Your task to perform on an android device: Search for "usb-c to usb-a" on target.com, select the first entry, and add it to the cart. Image 0: 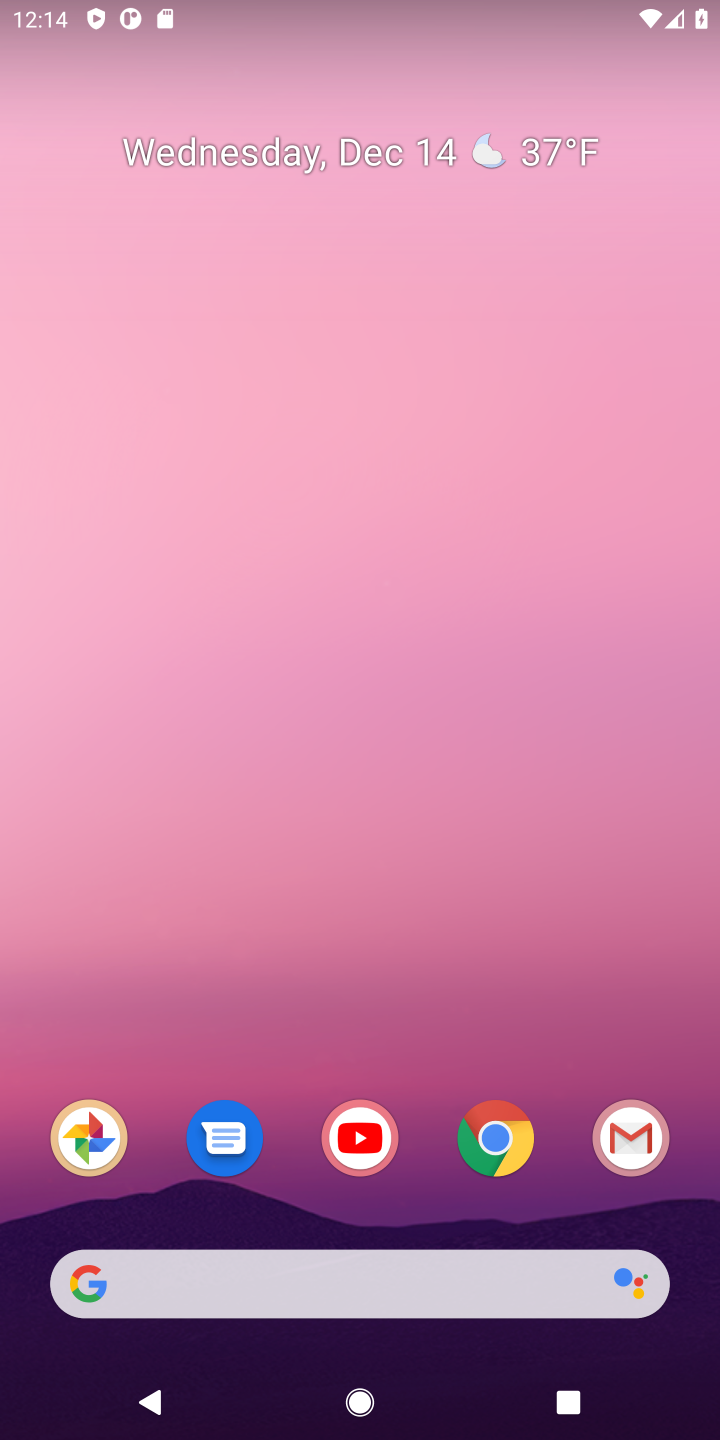
Step 0: click (500, 1148)
Your task to perform on an android device: Search for "usb-c to usb-a" on target.com, select the first entry, and add it to the cart. Image 1: 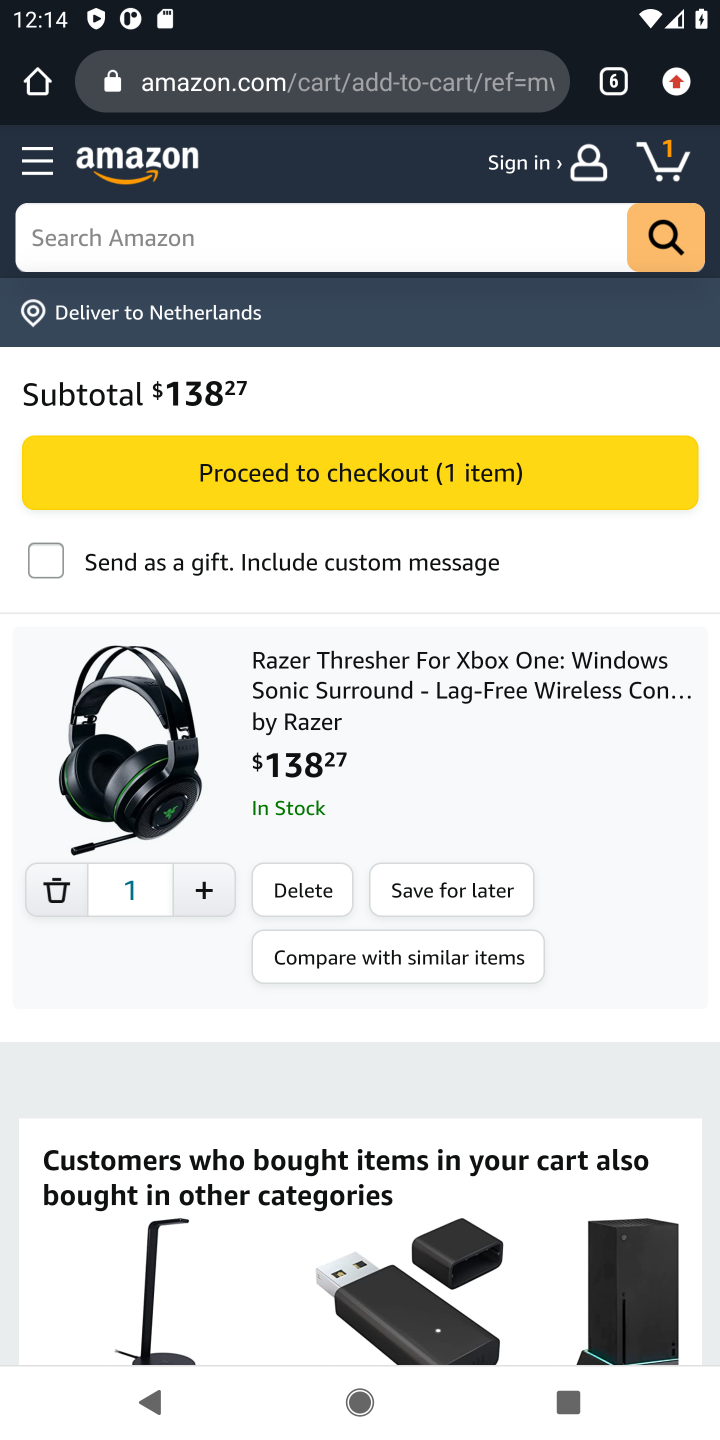
Step 1: click (607, 86)
Your task to perform on an android device: Search for "usb-c to usb-a" on target.com, select the first entry, and add it to the cart. Image 2: 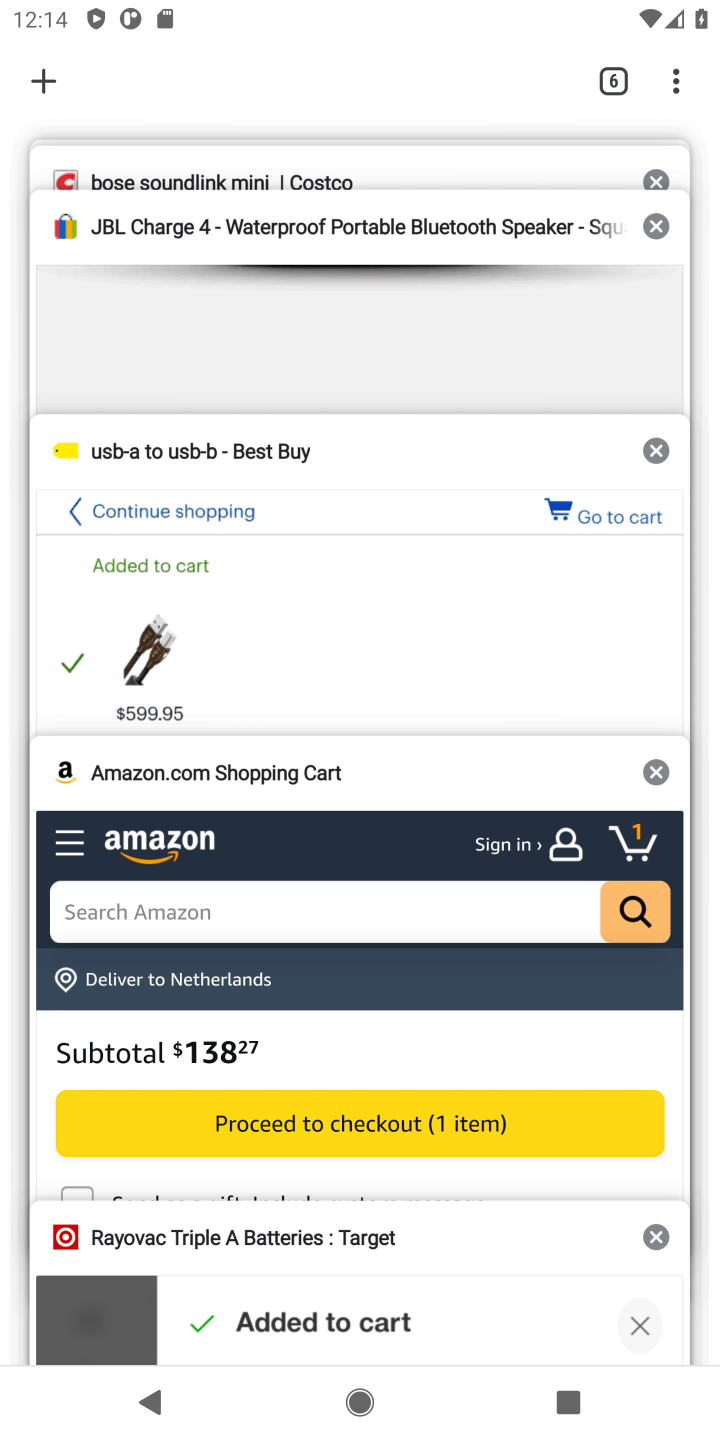
Step 2: drag from (261, 102) to (139, 796)
Your task to perform on an android device: Search for "usb-c to usb-a" on target.com, select the first entry, and add it to the cart. Image 3: 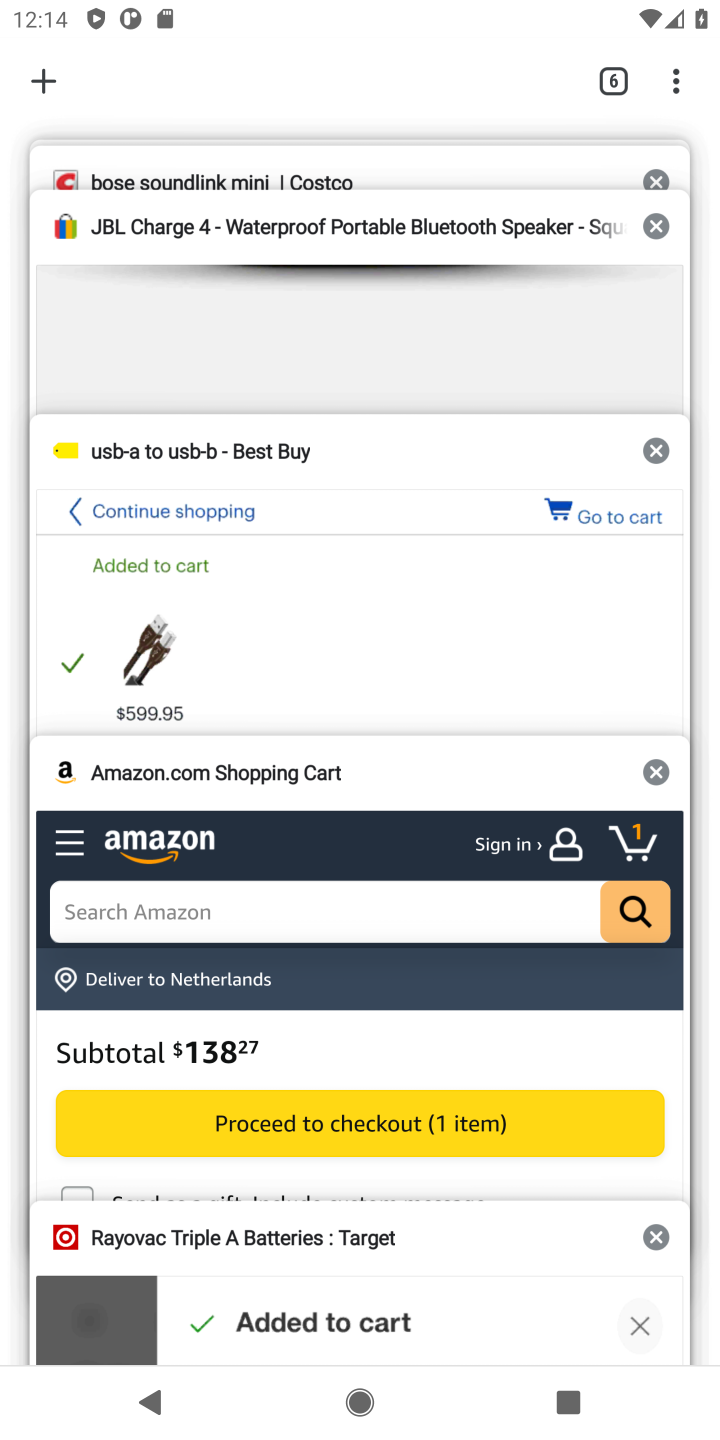
Step 3: drag from (268, 173) to (274, 614)
Your task to perform on an android device: Search for "usb-c to usb-a" on target.com, select the first entry, and add it to the cart. Image 4: 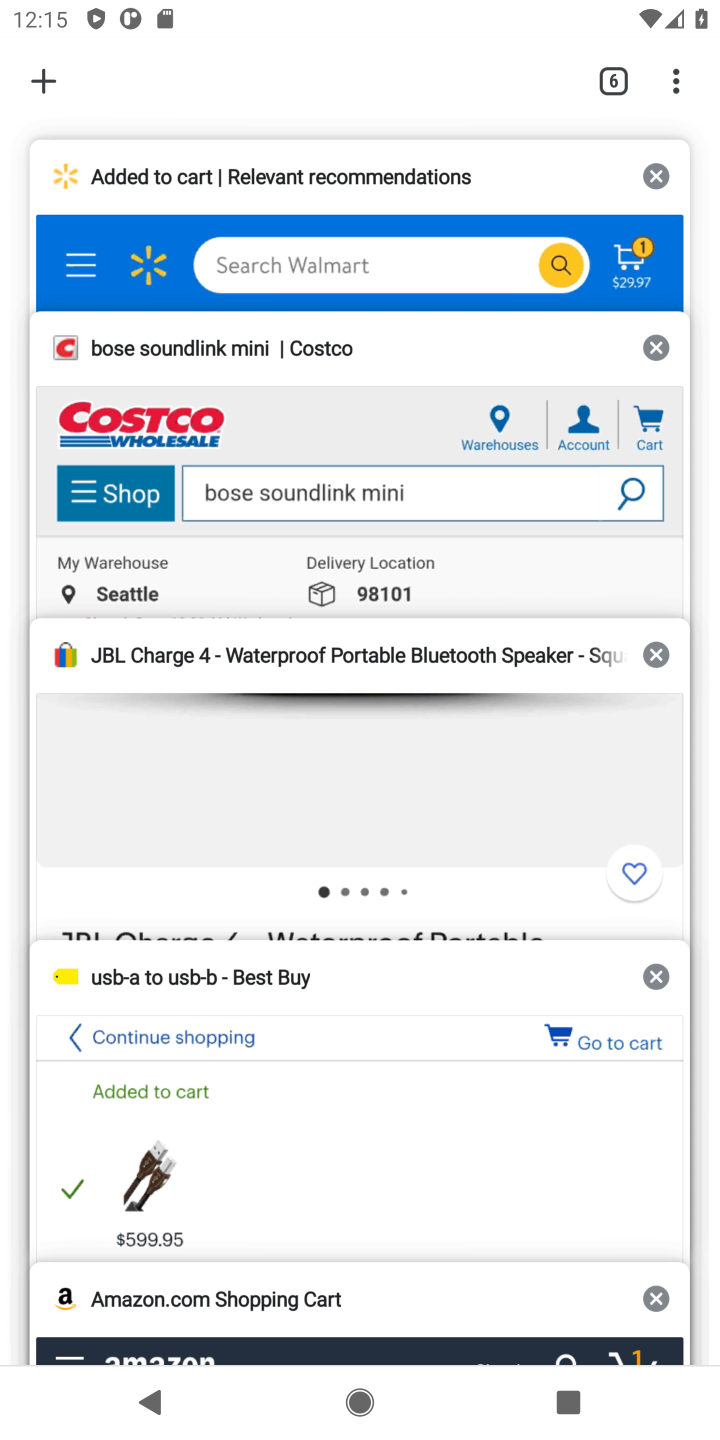
Step 4: drag from (271, 1031) to (303, 919)
Your task to perform on an android device: Search for "usb-c to usb-a" on target.com, select the first entry, and add it to the cart. Image 5: 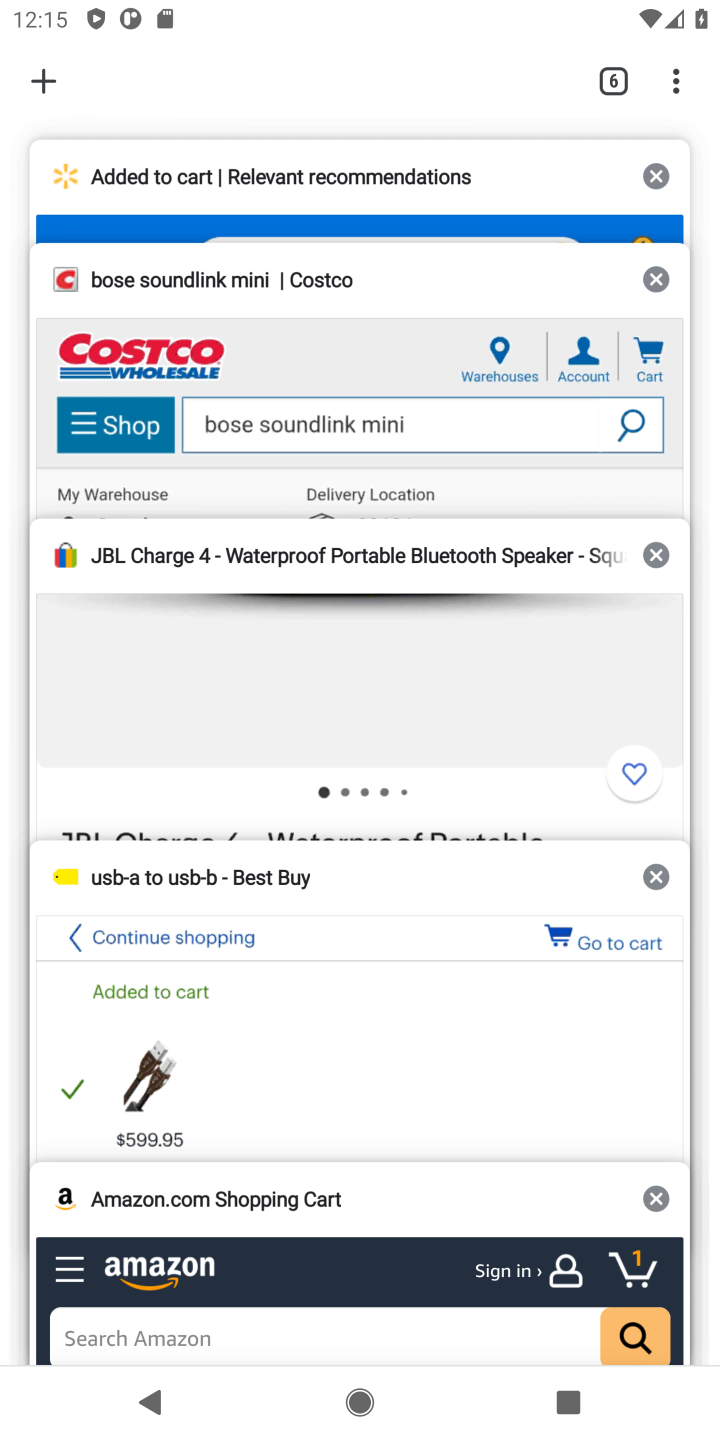
Step 5: drag from (344, 1262) to (385, 1067)
Your task to perform on an android device: Search for "usb-c to usb-a" on target.com, select the first entry, and add it to the cart. Image 6: 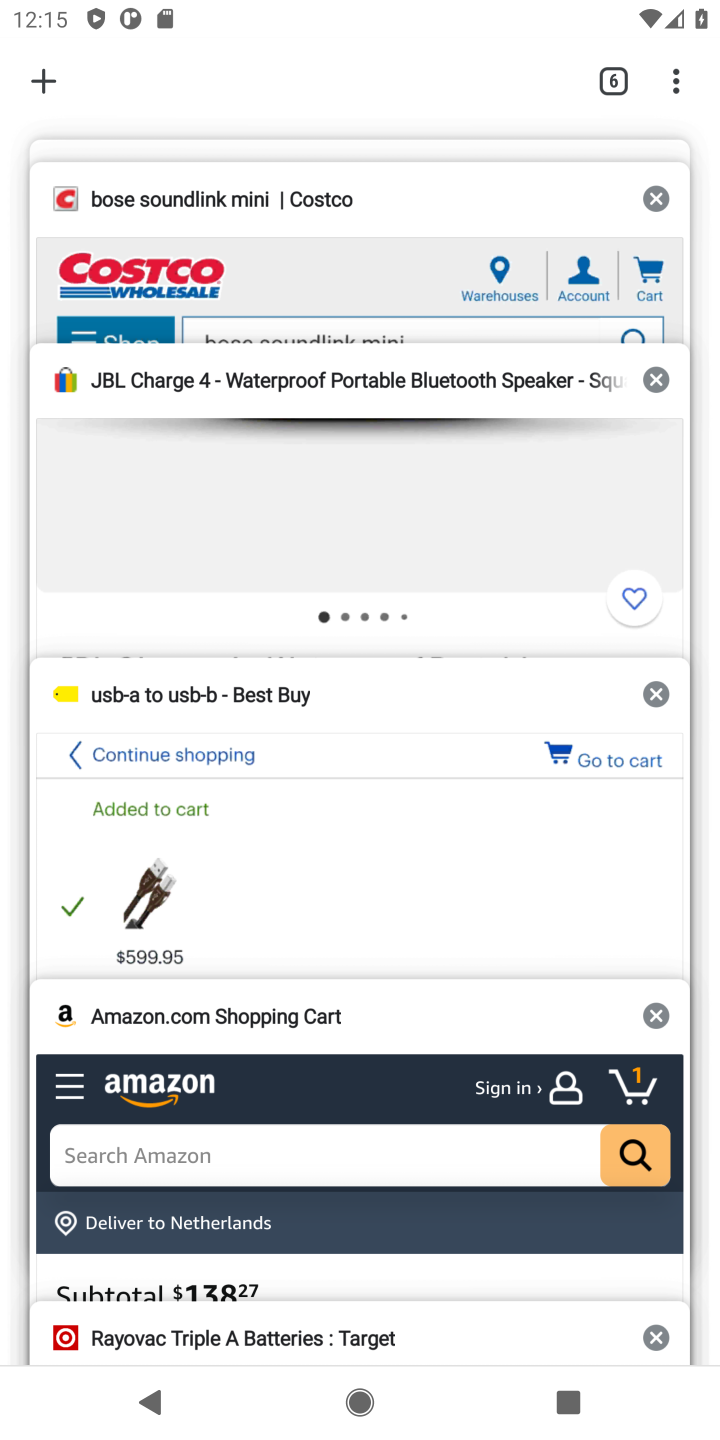
Step 6: click (287, 1327)
Your task to perform on an android device: Search for "usb-c to usb-a" on target.com, select the first entry, and add it to the cart. Image 7: 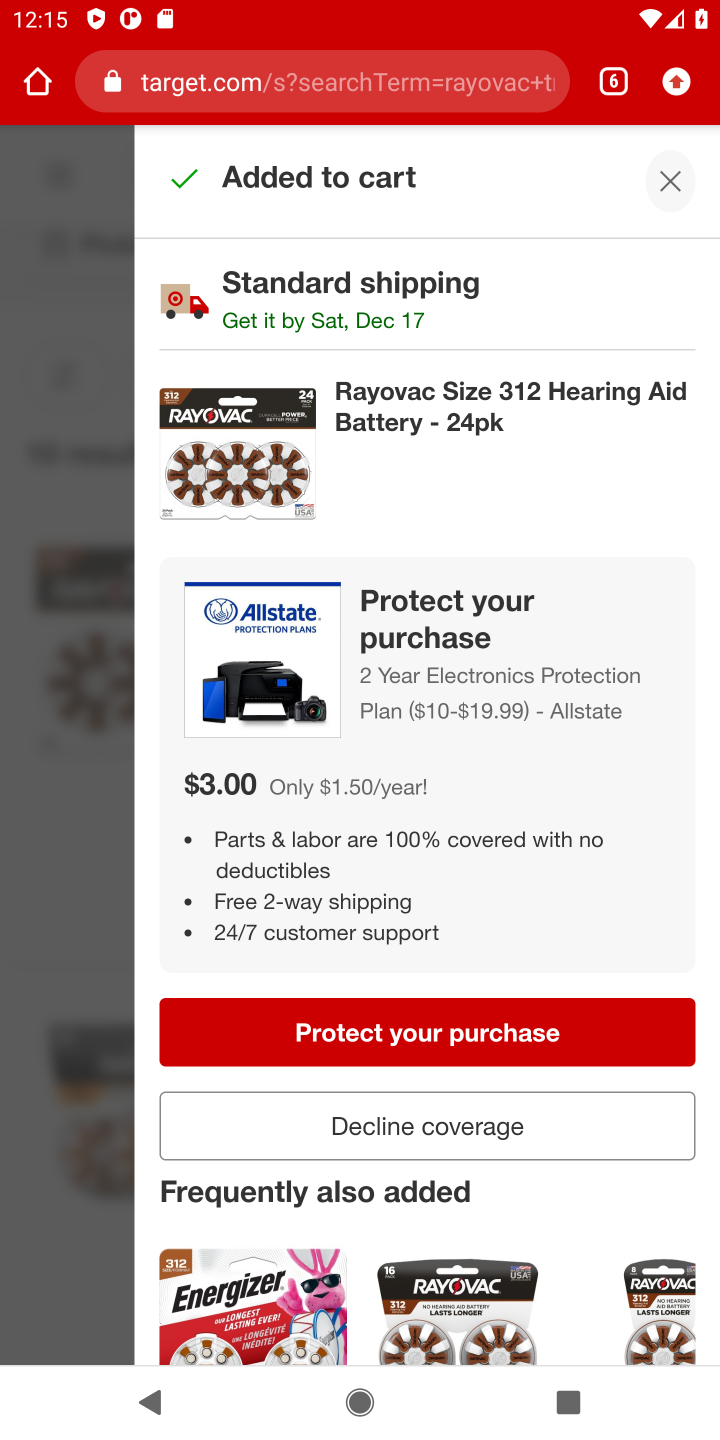
Step 7: click (666, 177)
Your task to perform on an android device: Search for "usb-c to usb-a" on target.com, select the first entry, and add it to the cart. Image 8: 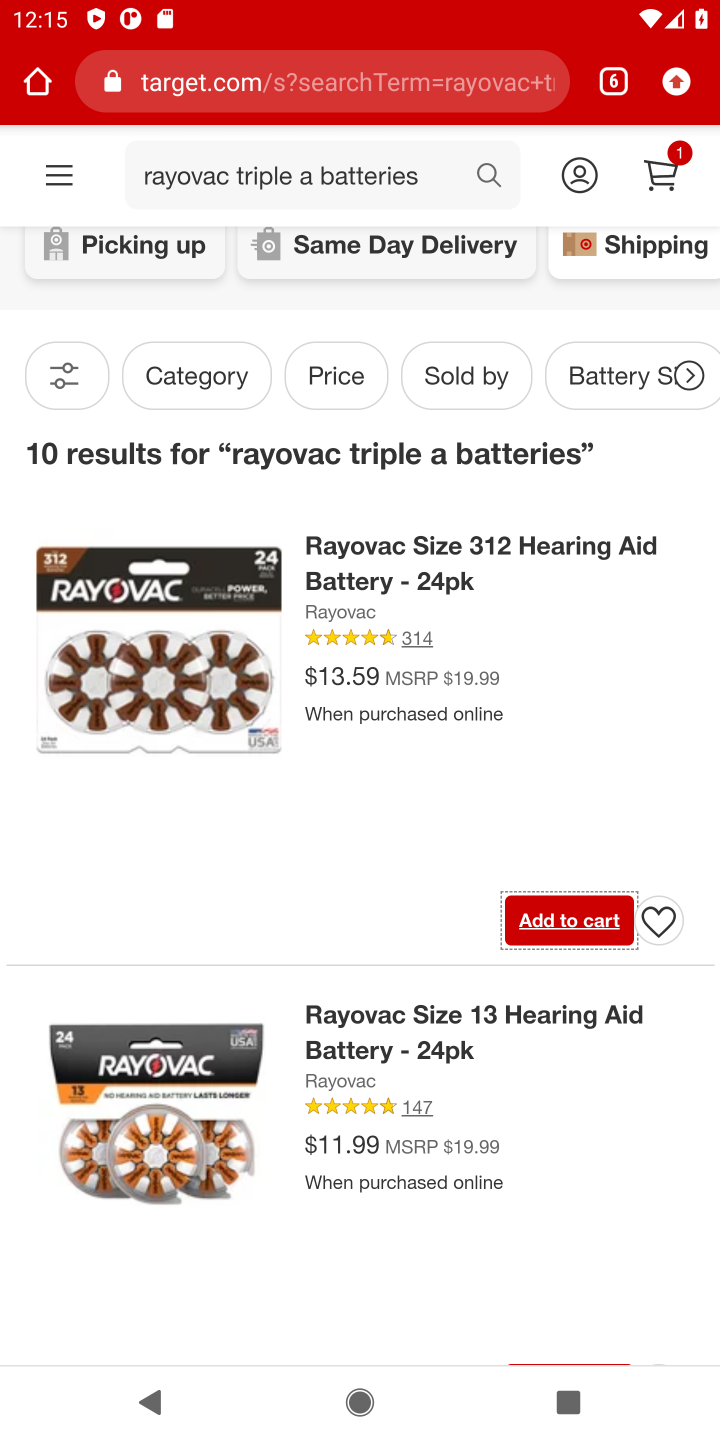
Step 8: click (260, 178)
Your task to perform on an android device: Search for "usb-c to usb-a" on target.com, select the first entry, and add it to the cart. Image 9: 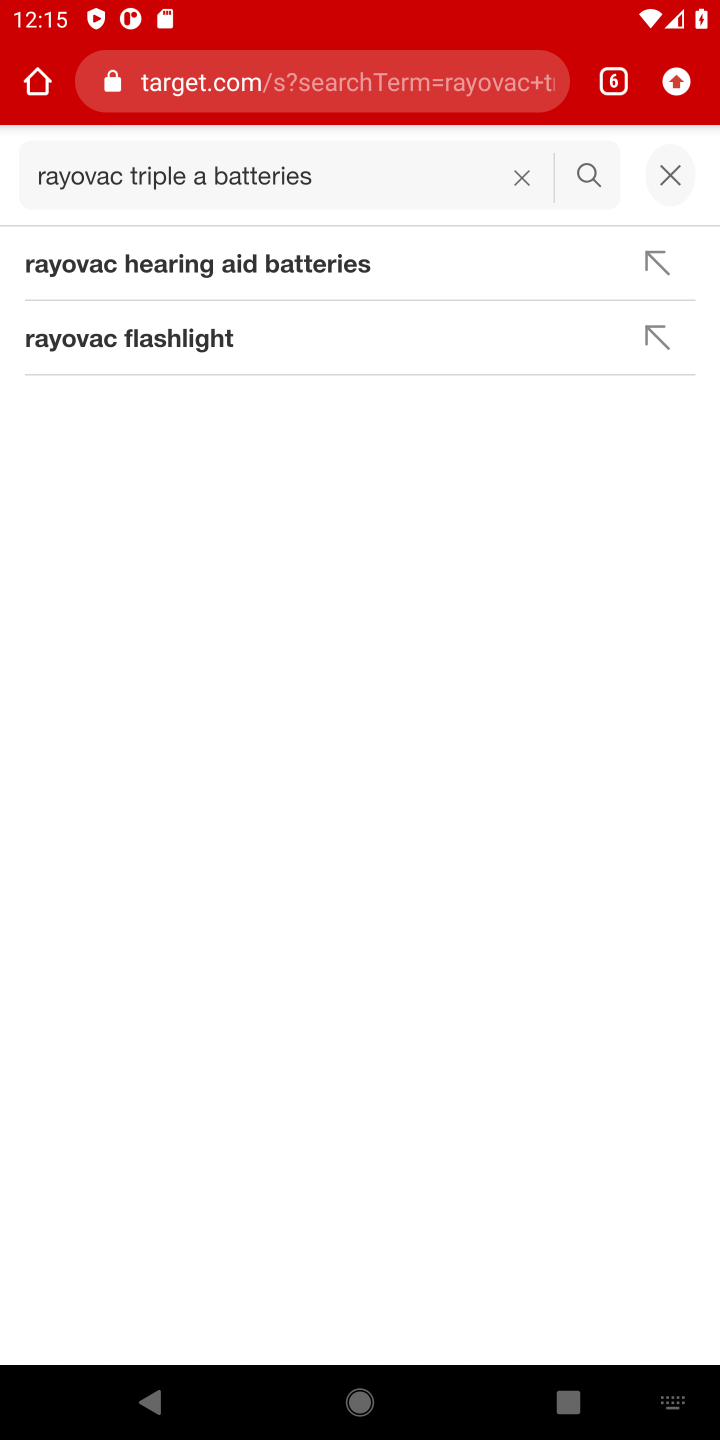
Step 9: click (528, 178)
Your task to perform on an android device: Search for "usb-c to usb-a" on target.com, select the first entry, and add it to the cart. Image 10: 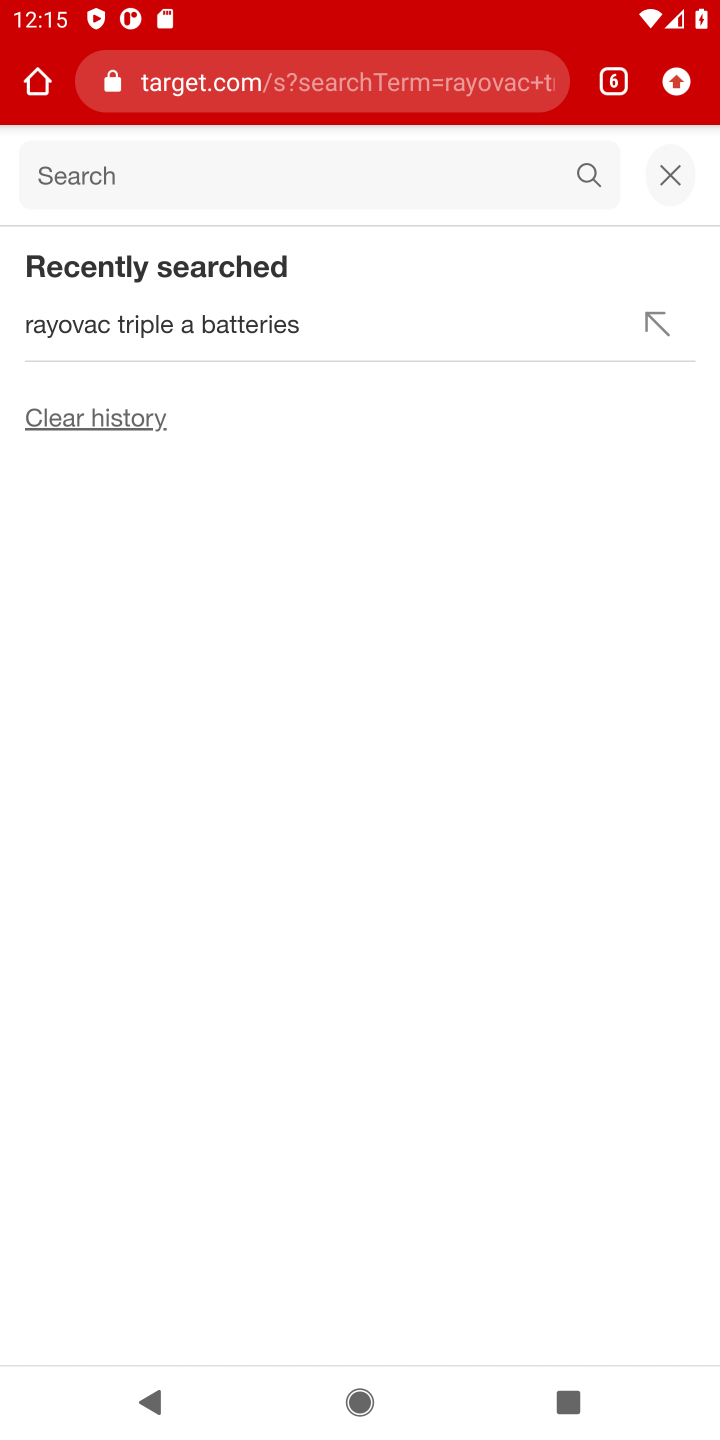
Step 10: type "usb-c to usb-a"
Your task to perform on an android device: Search for "usb-c to usb-a" on target.com, select the first entry, and add it to the cart. Image 11: 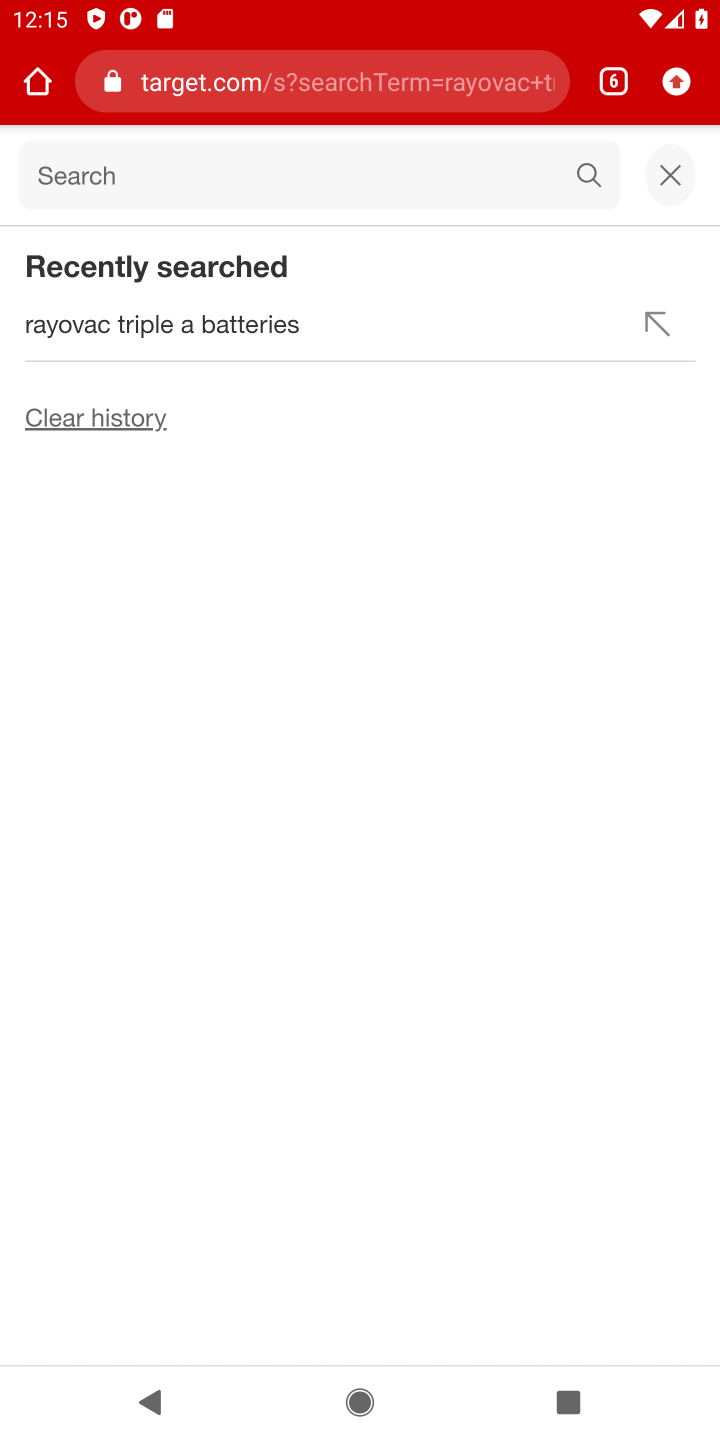
Step 11: click (169, 177)
Your task to perform on an android device: Search for "usb-c to usb-a" on target.com, select the first entry, and add it to the cart. Image 12: 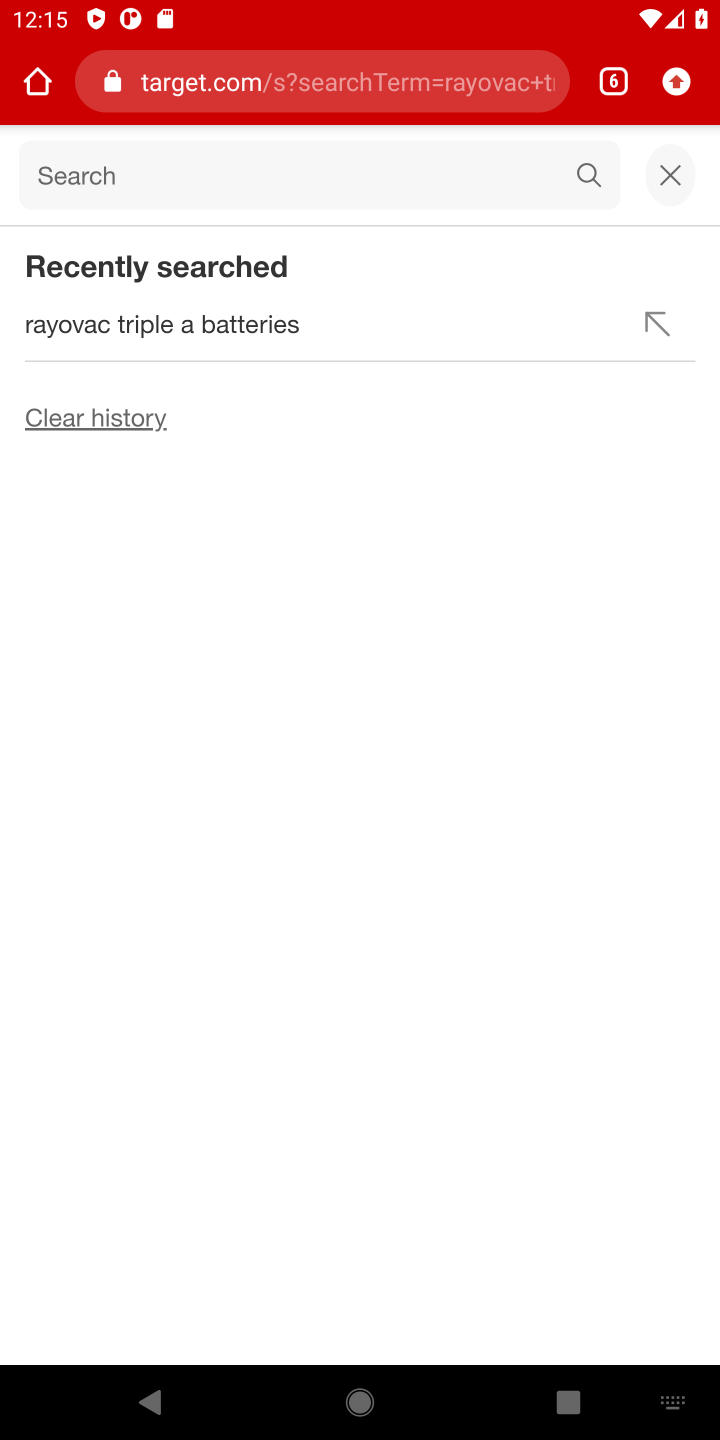
Step 12: type "usb-c to usb-a"
Your task to perform on an android device: Search for "usb-c to usb-a" on target.com, select the first entry, and add it to the cart. Image 13: 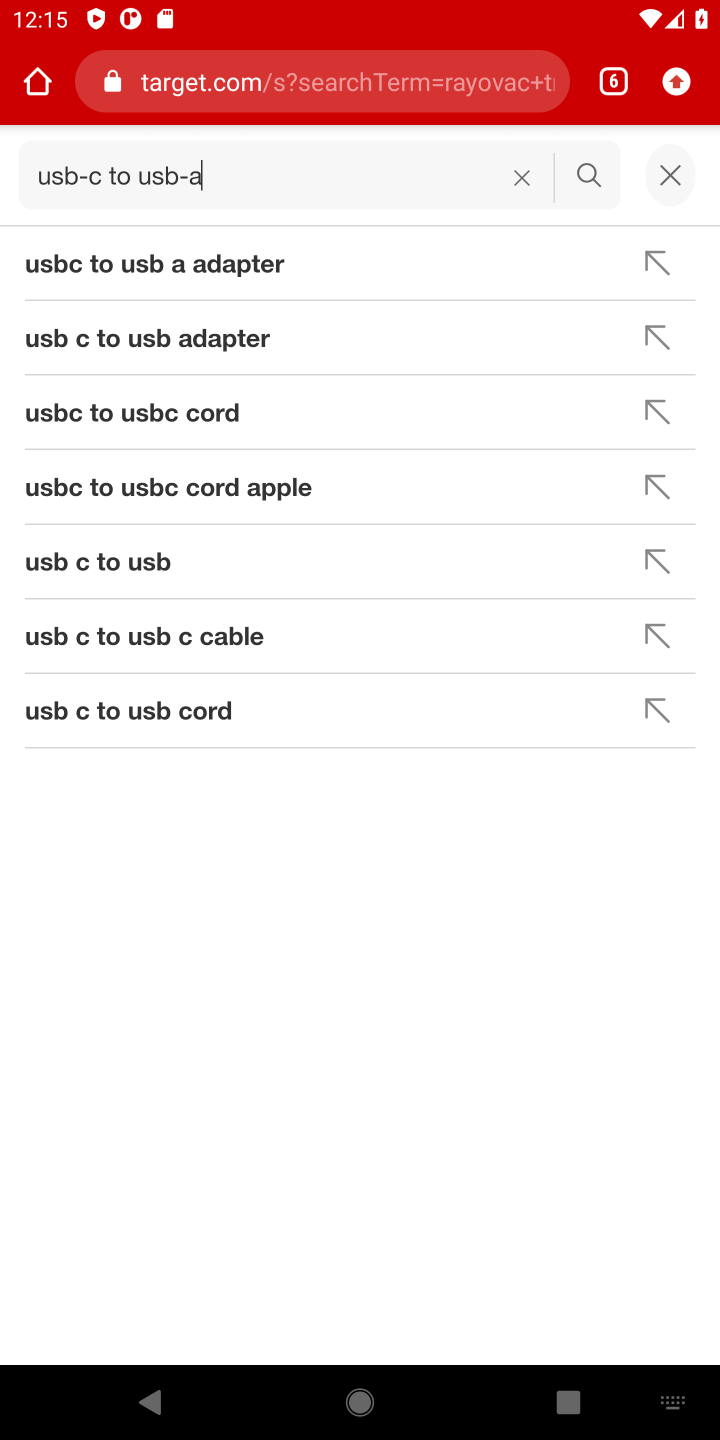
Step 13: click (588, 162)
Your task to perform on an android device: Search for "usb-c to usb-a" on target.com, select the first entry, and add it to the cart. Image 14: 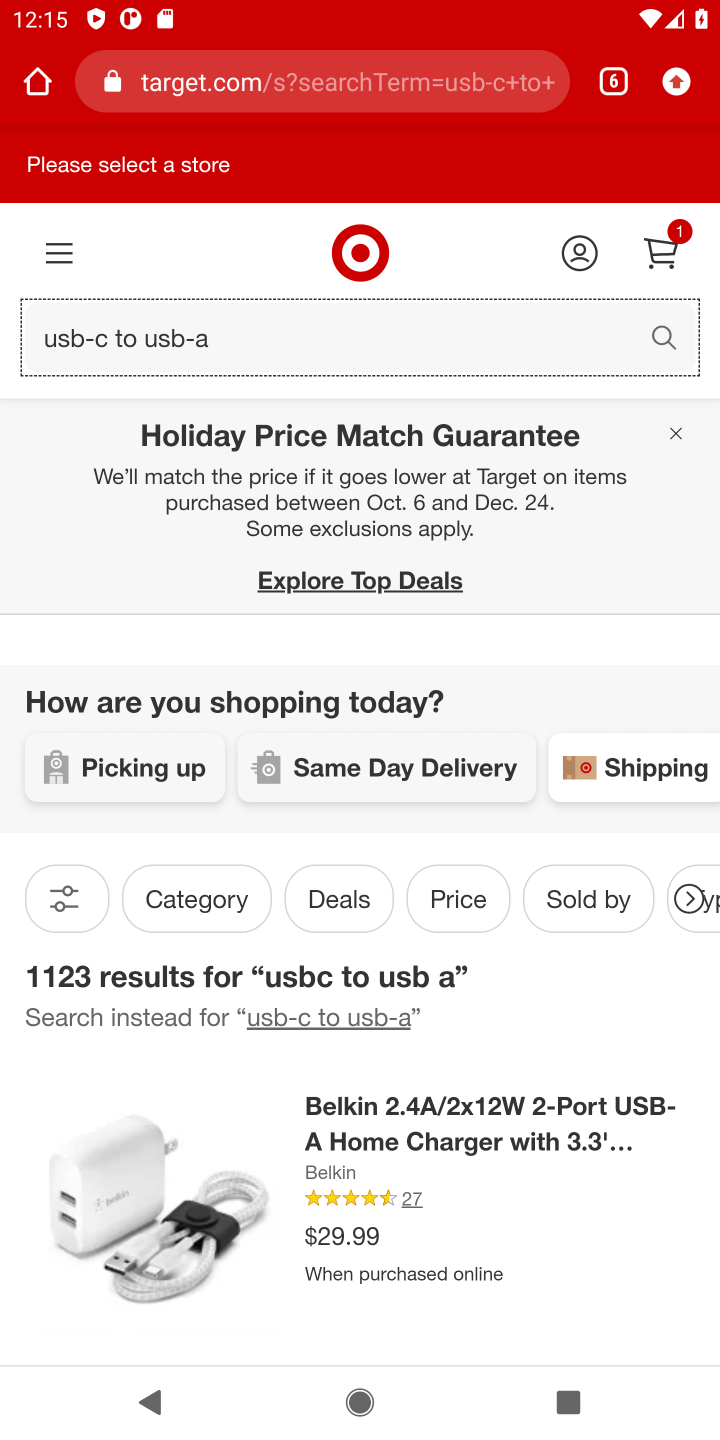
Step 14: drag from (469, 1212) to (652, 395)
Your task to perform on an android device: Search for "usb-c to usb-a" on target.com, select the first entry, and add it to the cart. Image 15: 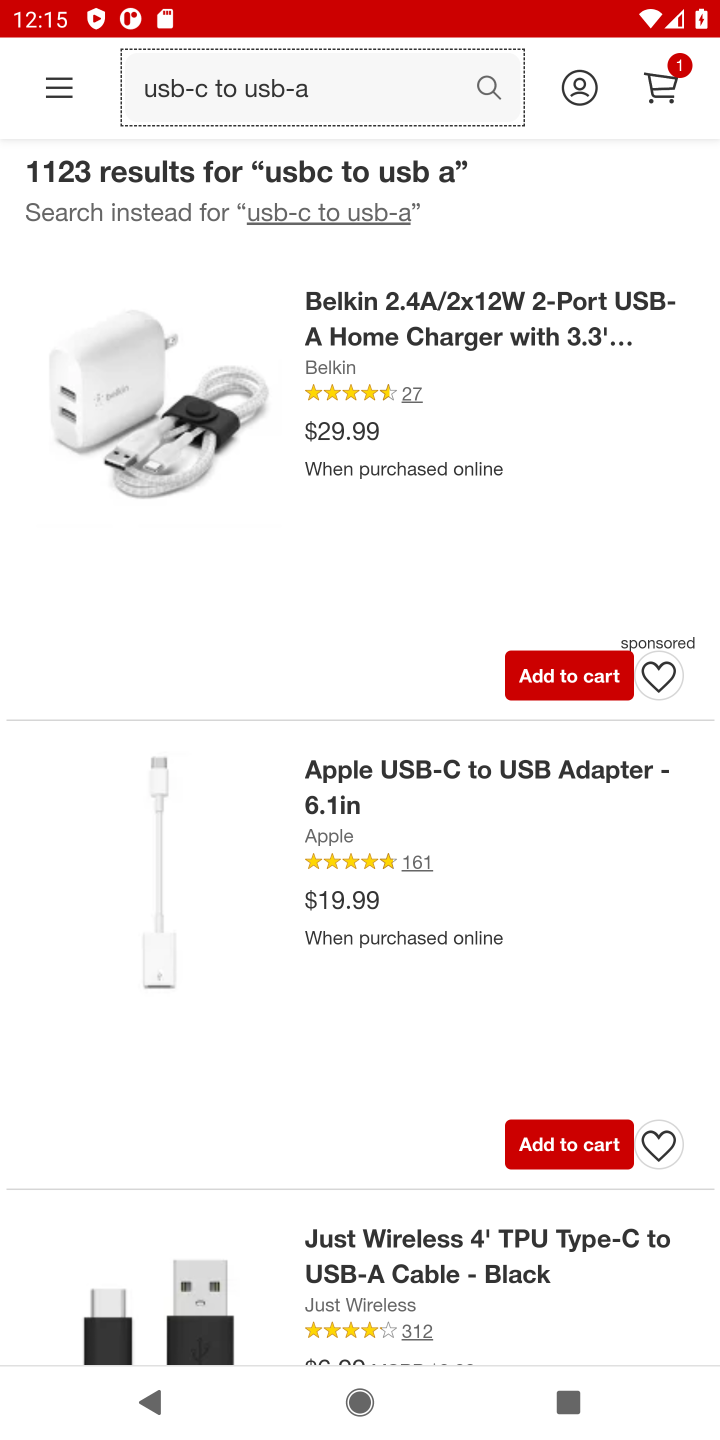
Step 15: drag from (541, 1279) to (572, 584)
Your task to perform on an android device: Search for "usb-c to usb-a" on target.com, select the first entry, and add it to the cart. Image 16: 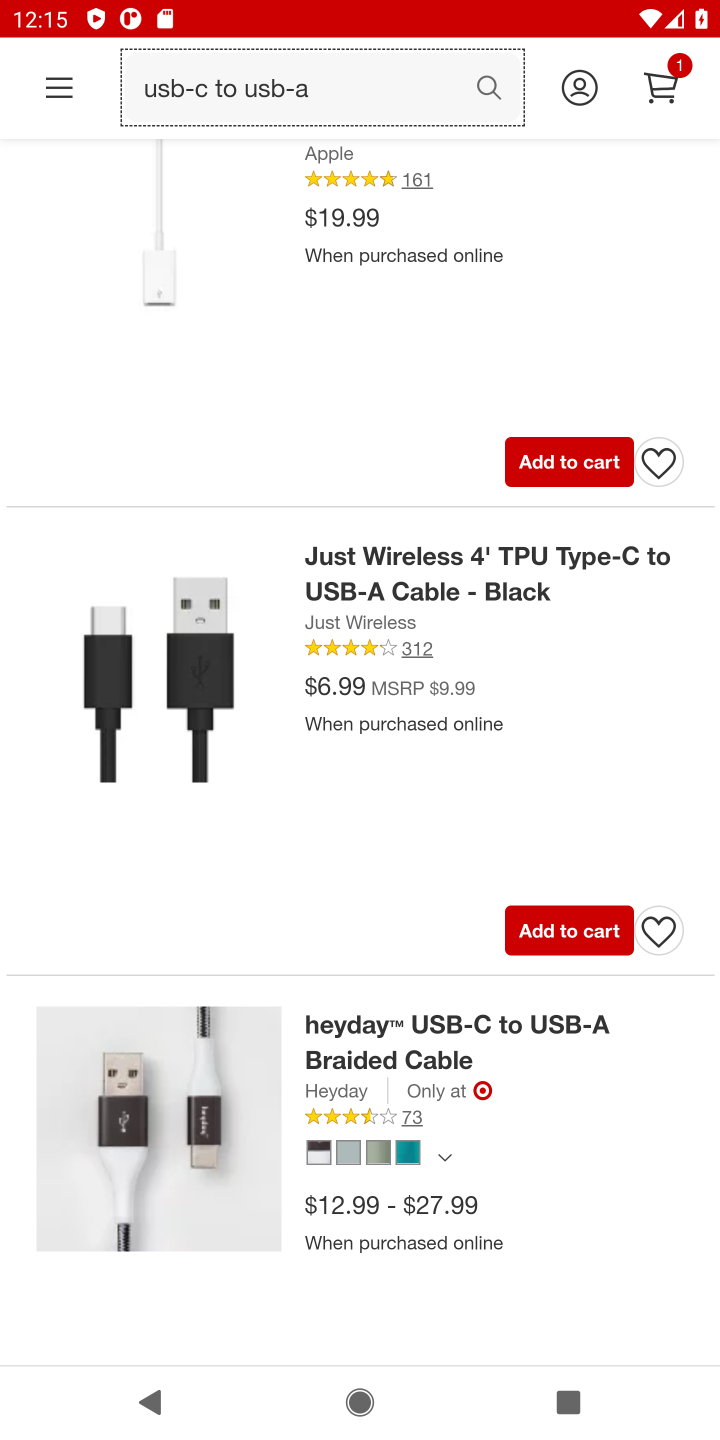
Step 16: drag from (539, 1222) to (613, 765)
Your task to perform on an android device: Search for "usb-c to usb-a" on target.com, select the first entry, and add it to the cart. Image 17: 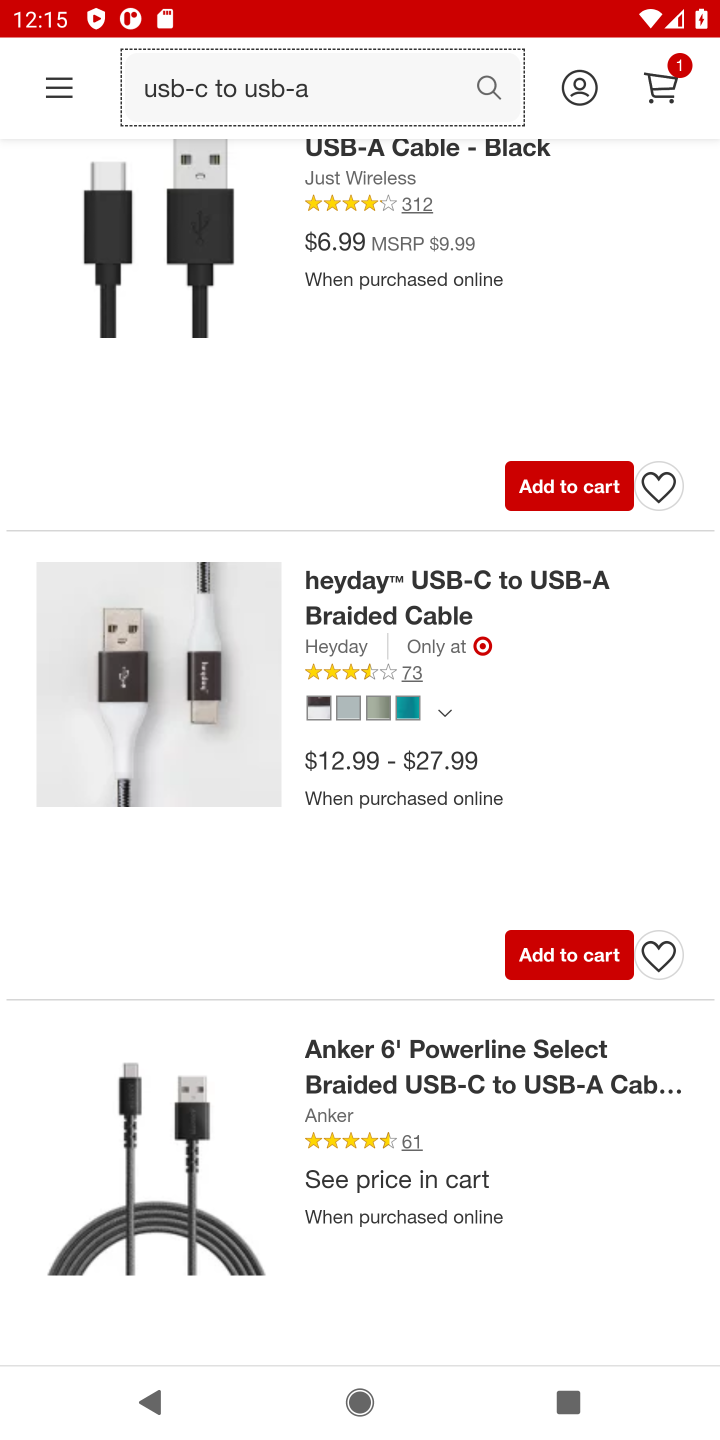
Step 17: click (572, 951)
Your task to perform on an android device: Search for "usb-c to usb-a" on target.com, select the first entry, and add it to the cart. Image 18: 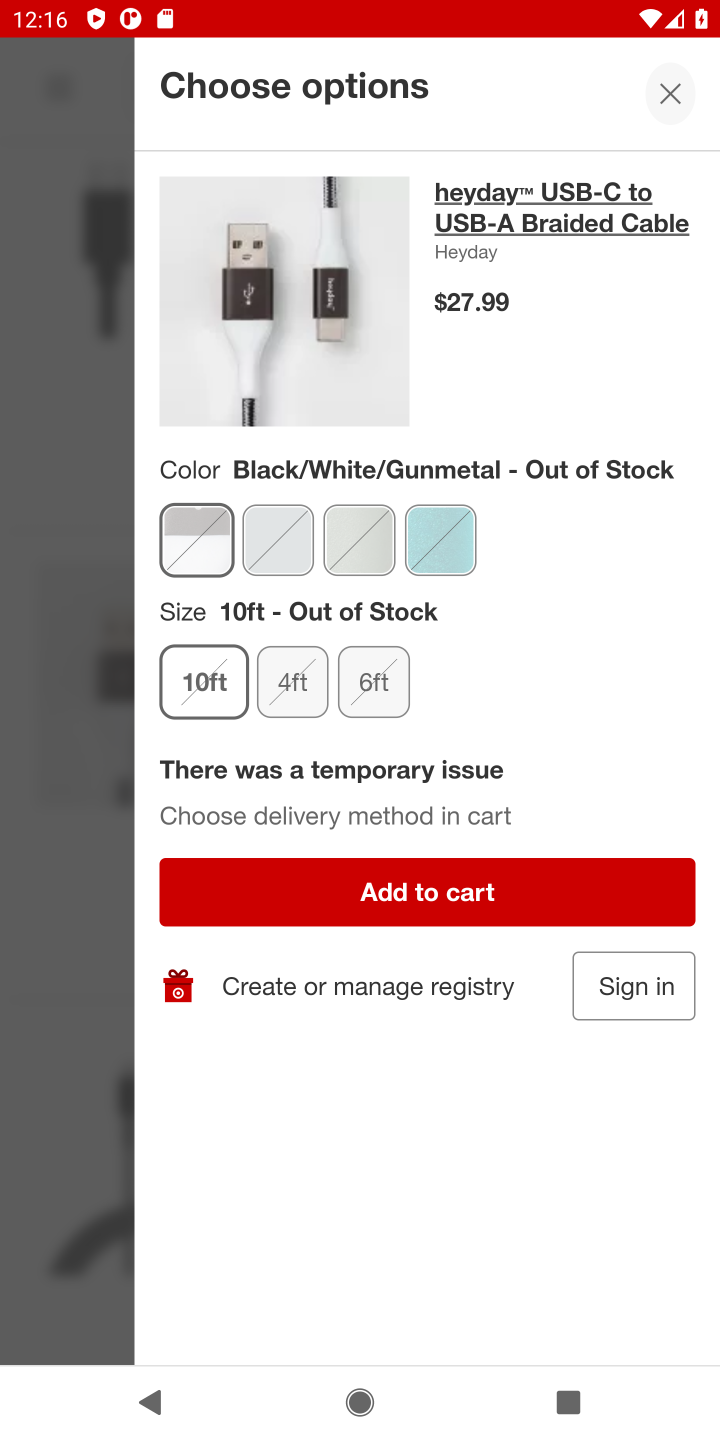
Step 18: click (525, 896)
Your task to perform on an android device: Search for "usb-c to usb-a" on target.com, select the first entry, and add it to the cart. Image 19: 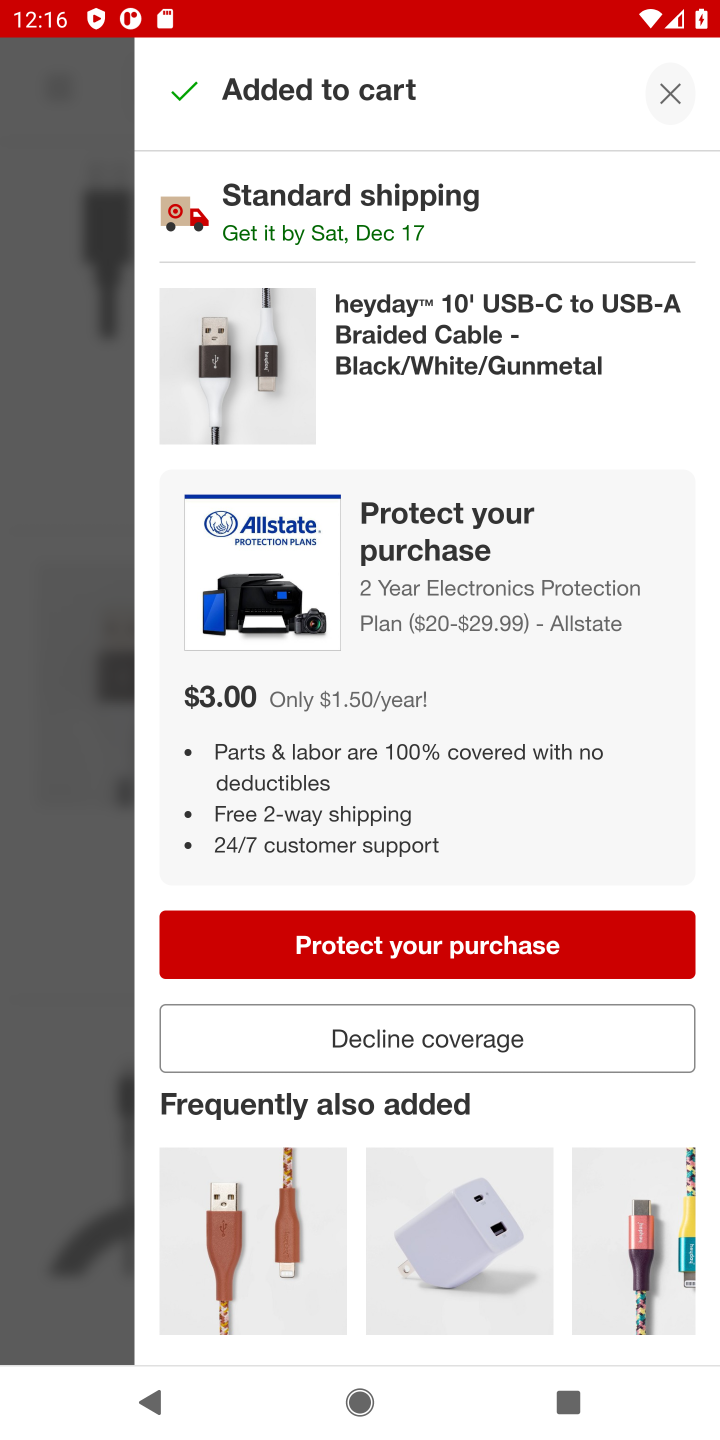
Step 19: task complete